Your task to perform on an android device: Open Google Chrome Image 0: 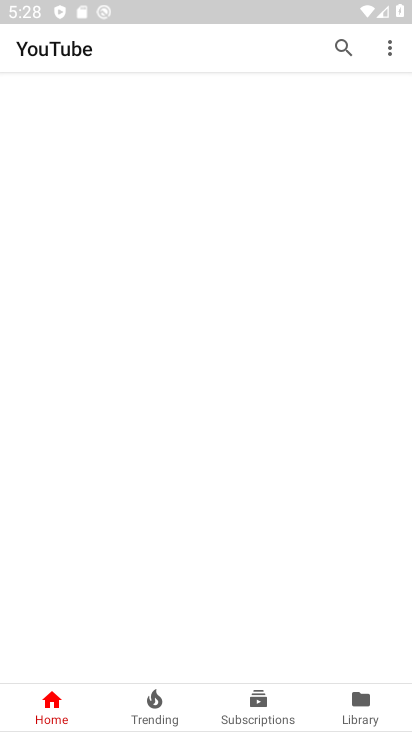
Step 0: click (142, 602)
Your task to perform on an android device: Open Google Chrome Image 1: 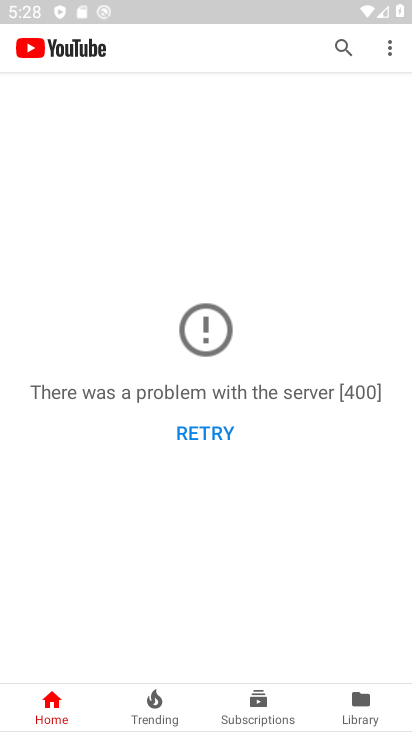
Step 1: press home button
Your task to perform on an android device: Open Google Chrome Image 2: 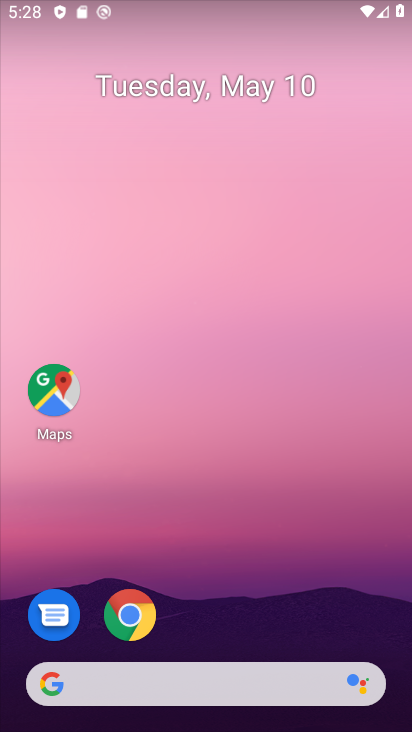
Step 2: click (125, 605)
Your task to perform on an android device: Open Google Chrome Image 3: 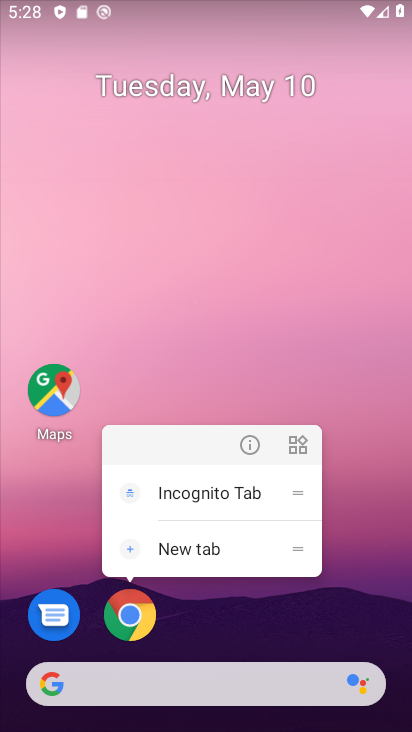
Step 3: click (135, 604)
Your task to perform on an android device: Open Google Chrome Image 4: 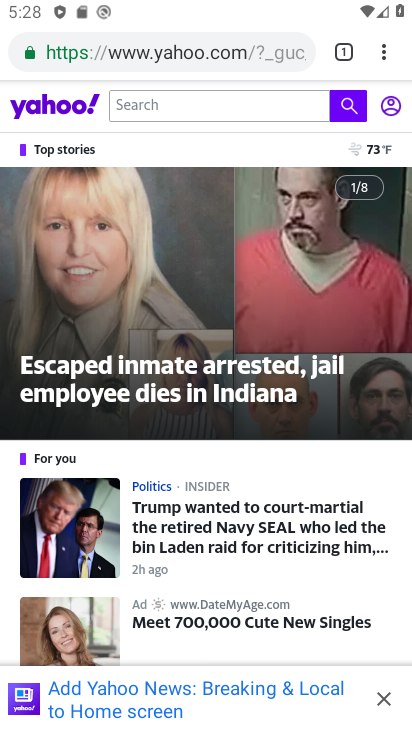
Step 4: click (382, 51)
Your task to perform on an android device: Open Google Chrome Image 5: 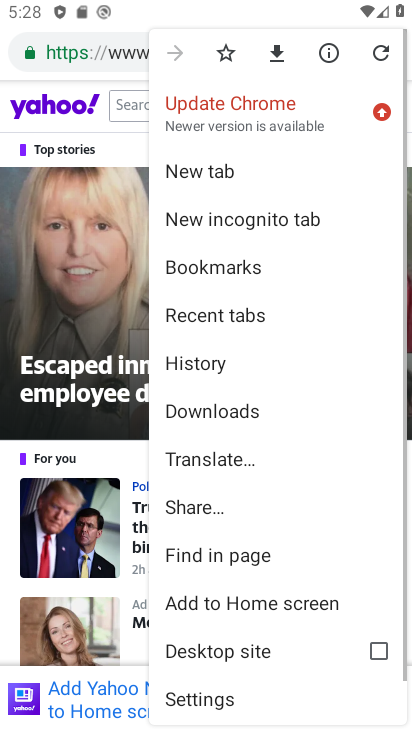
Step 5: click (237, 174)
Your task to perform on an android device: Open Google Chrome Image 6: 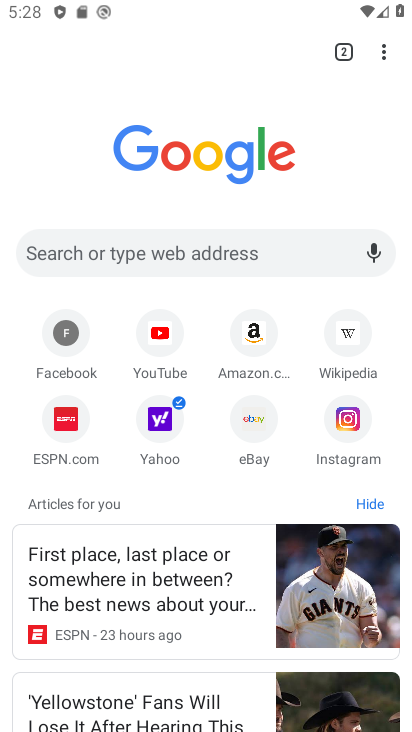
Step 6: task complete